Your task to perform on an android device: Open Google Image 0: 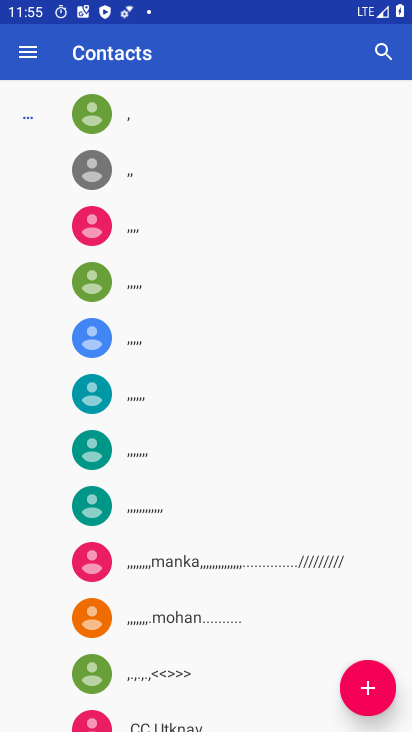
Step 0: press home button
Your task to perform on an android device: Open Google Image 1: 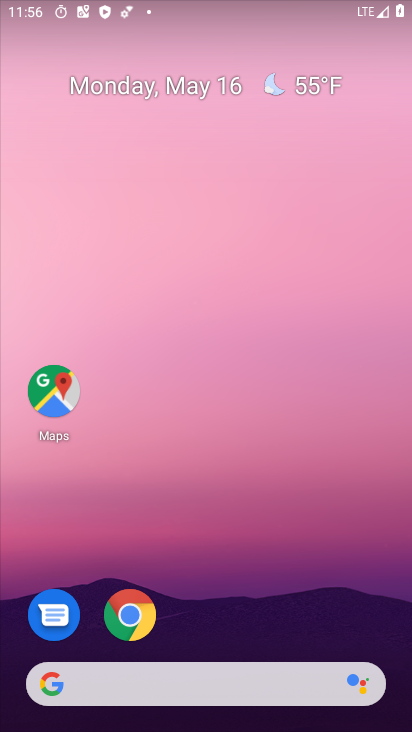
Step 1: drag from (225, 601) to (217, 78)
Your task to perform on an android device: Open Google Image 2: 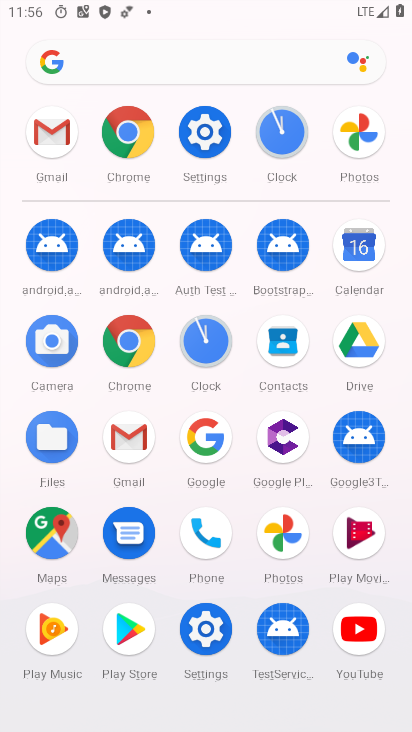
Step 2: click (196, 464)
Your task to perform on an android device: Open Google Image 3: 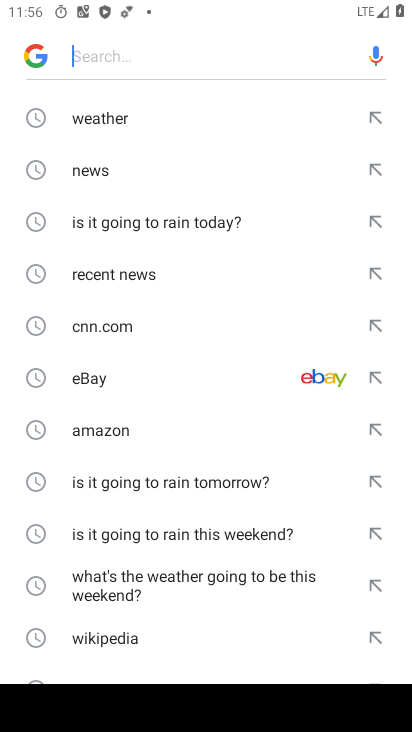
Step 3: task complete